Your task to perform on an android device: change the clock display to analog Image 0: 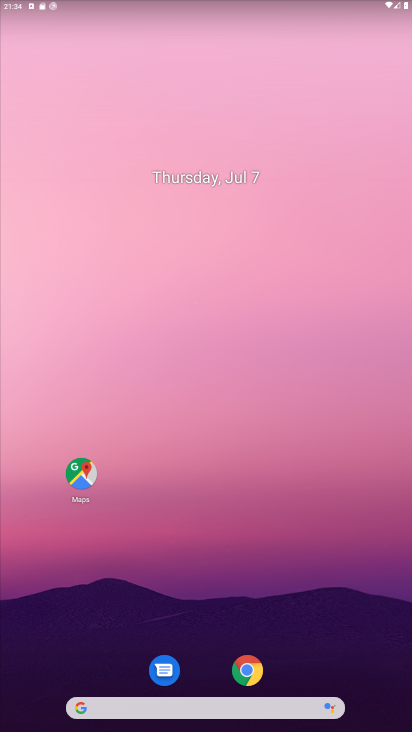
Step 0: task complete